Your task to perform on an android device: Open my contact list Image 0: 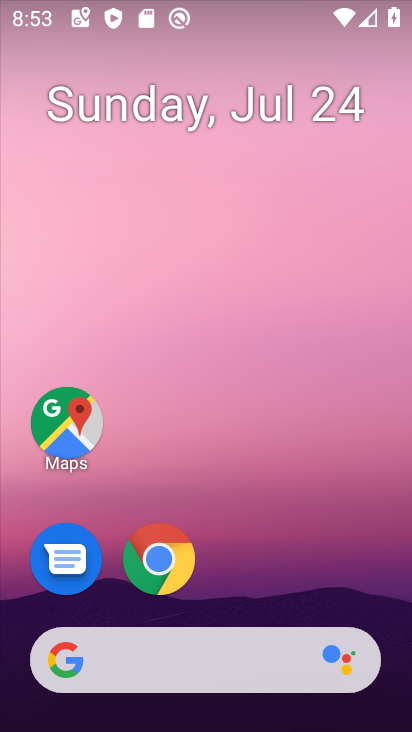
Step 0: drag from (238, 612) to (332, 0)
Your task to perform on an android device: Open my contact list Image 1: 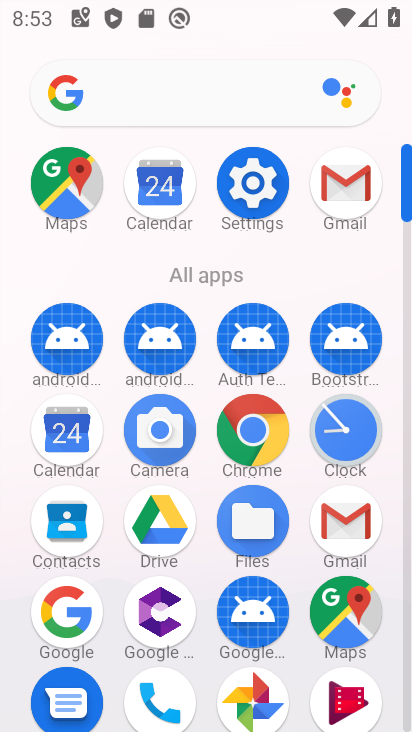
Step 1: click (64, 529)
Your task to perform on an android device: Open my contact list Image 2: 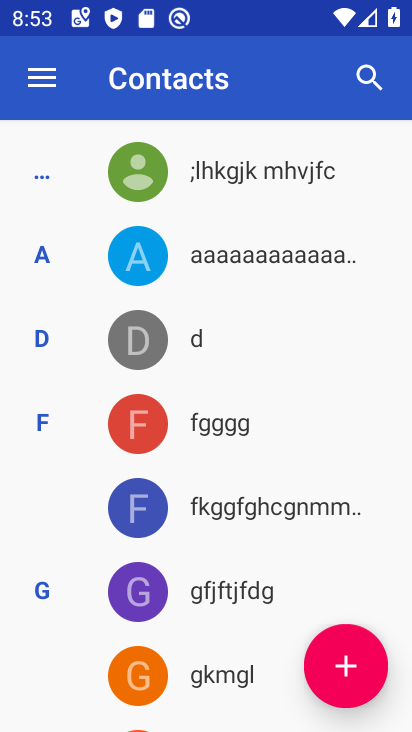
Step 2: task complete